Your task to perform on an android device: Go to settings Image 0: 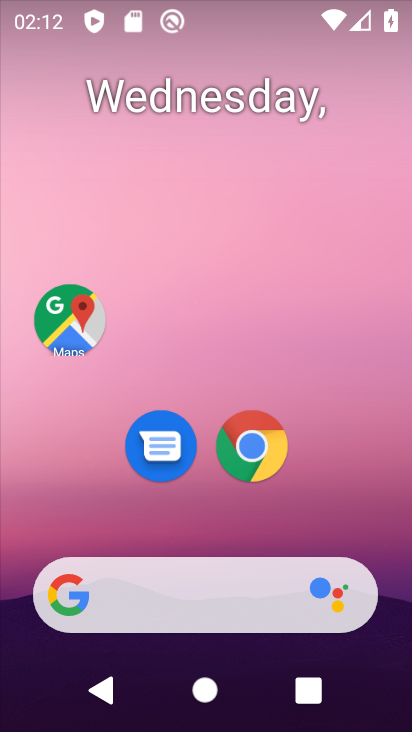
Step 0: drag from (321, 536) to (289, 263)
Your task to perform on an android device: Go to settings Image 1: 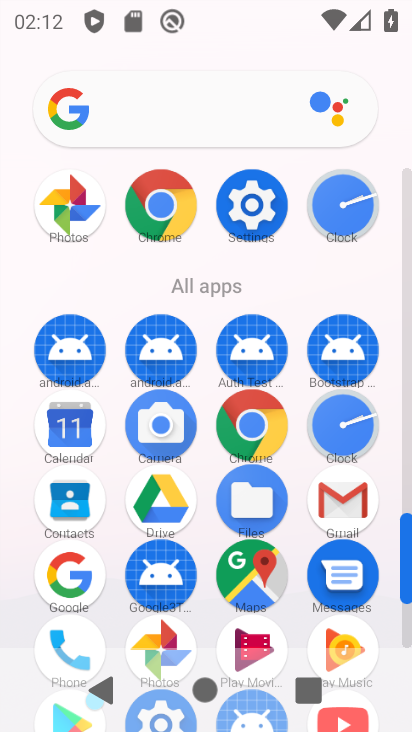
Step 1: click (265, 228)
Your task to perform on an android device: Go to settings Image 2: 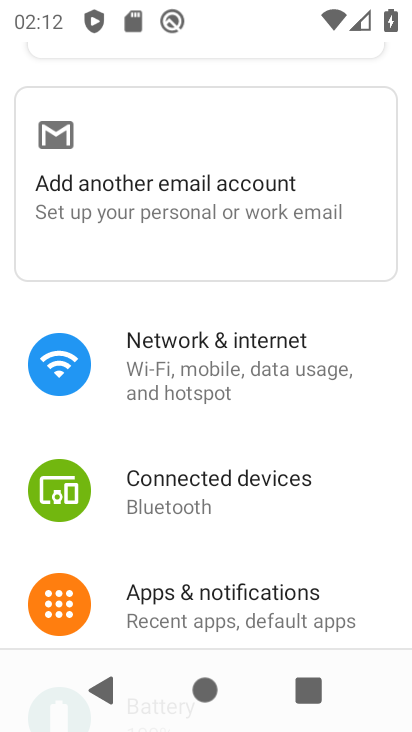
Step 2: task complete